Your task to perform on an android device: delete browsing data in the chrome app Image 0: 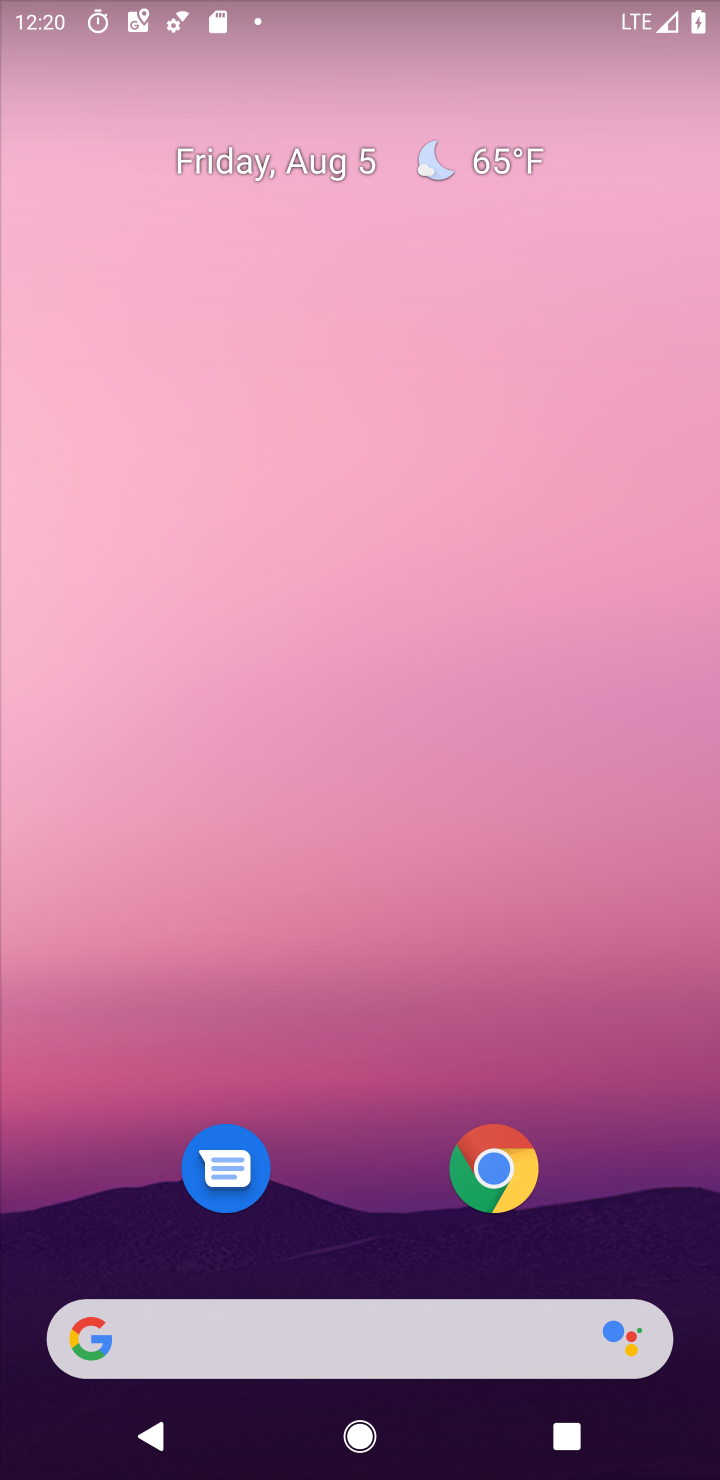
Step 0: drag from (350, 1270) to (422, 65)
Your task to perform on an android device: delete browsing data in the chrome app Image 1: 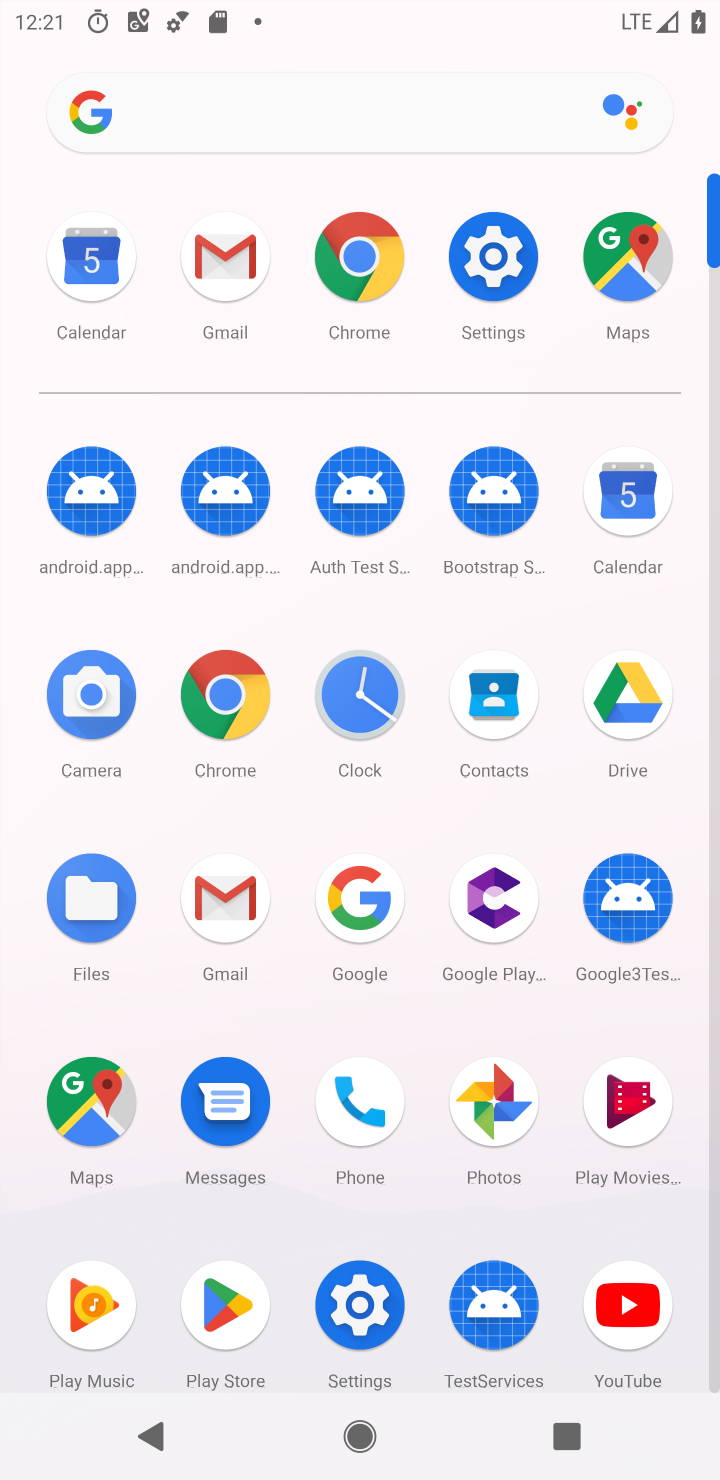
Step 1: click (232, 710)
Your task to perform on an android device: delete browsing data in the chrome app Image 2: 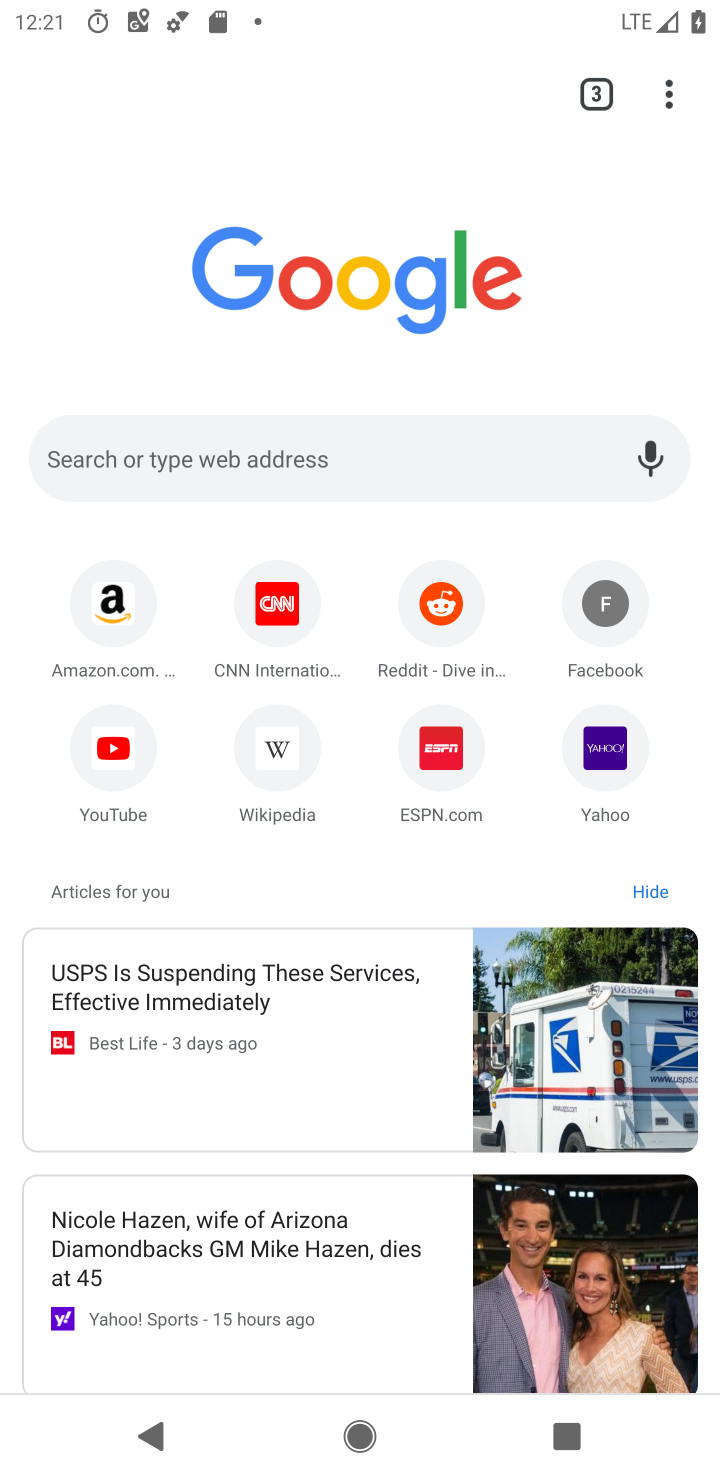
Step 2: click (657, 80)
Your task to perform on an android device: delete browsing data in the chrome app Image 3: 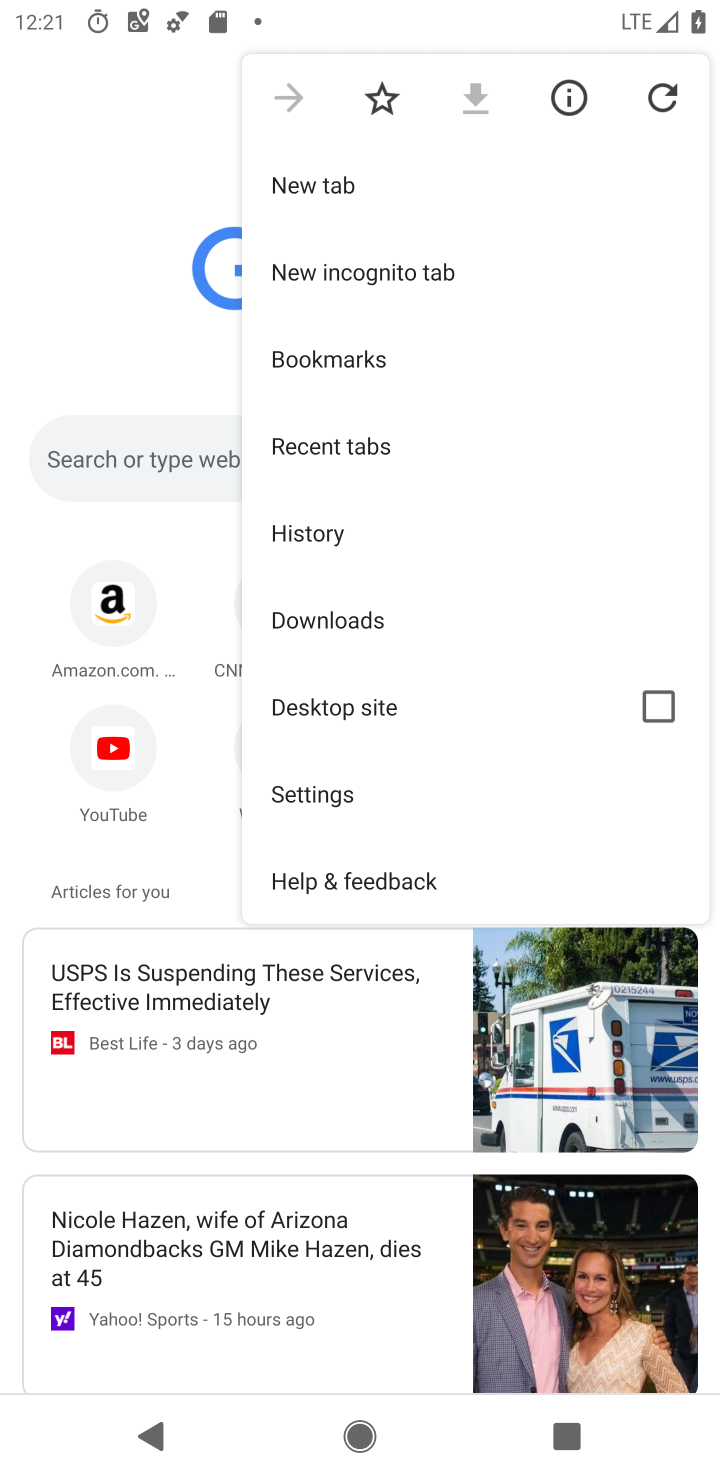
Step 3: click (315, 542)
Your task to perform on an android device: delete browsing data in the chrome app Image 4: 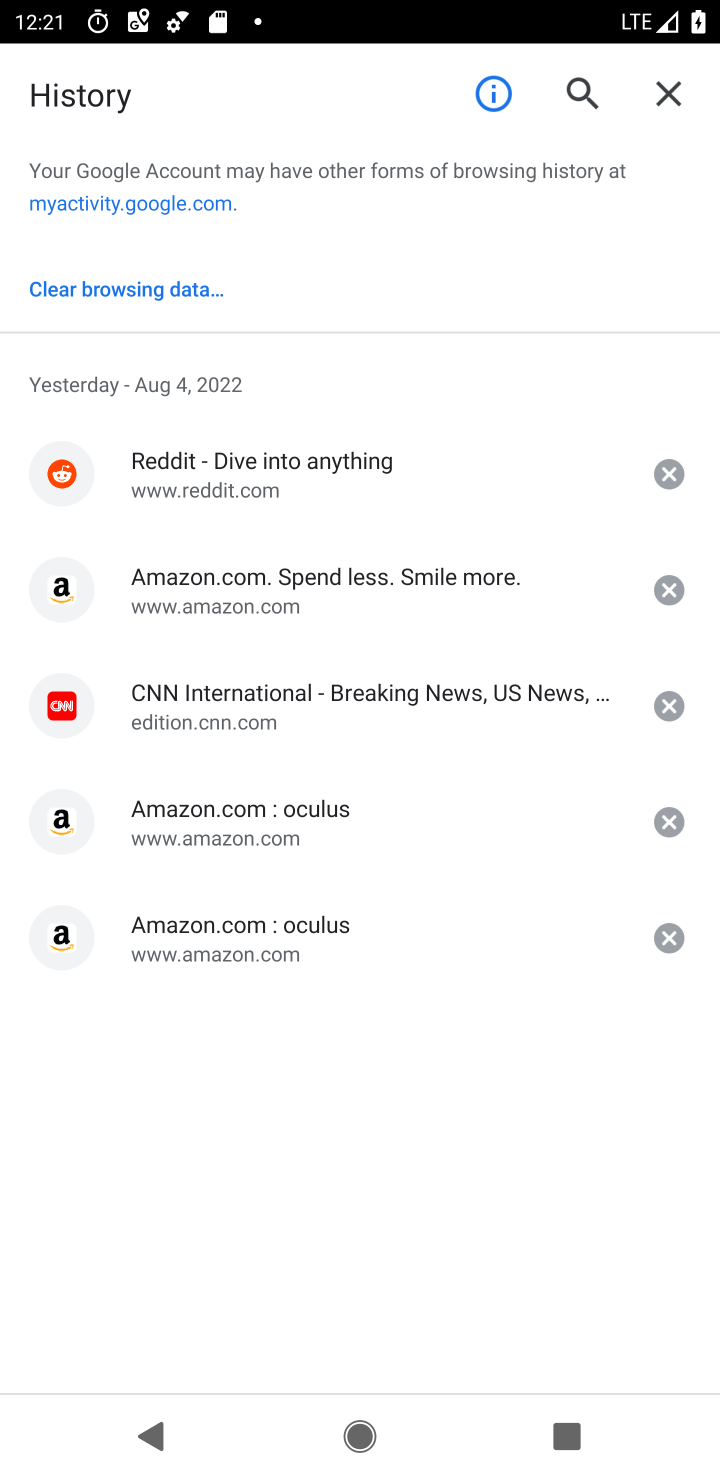
Step 4: click (117, 288)
Your task to perform on an android device: delete browsing data in the chrome app Image 5: 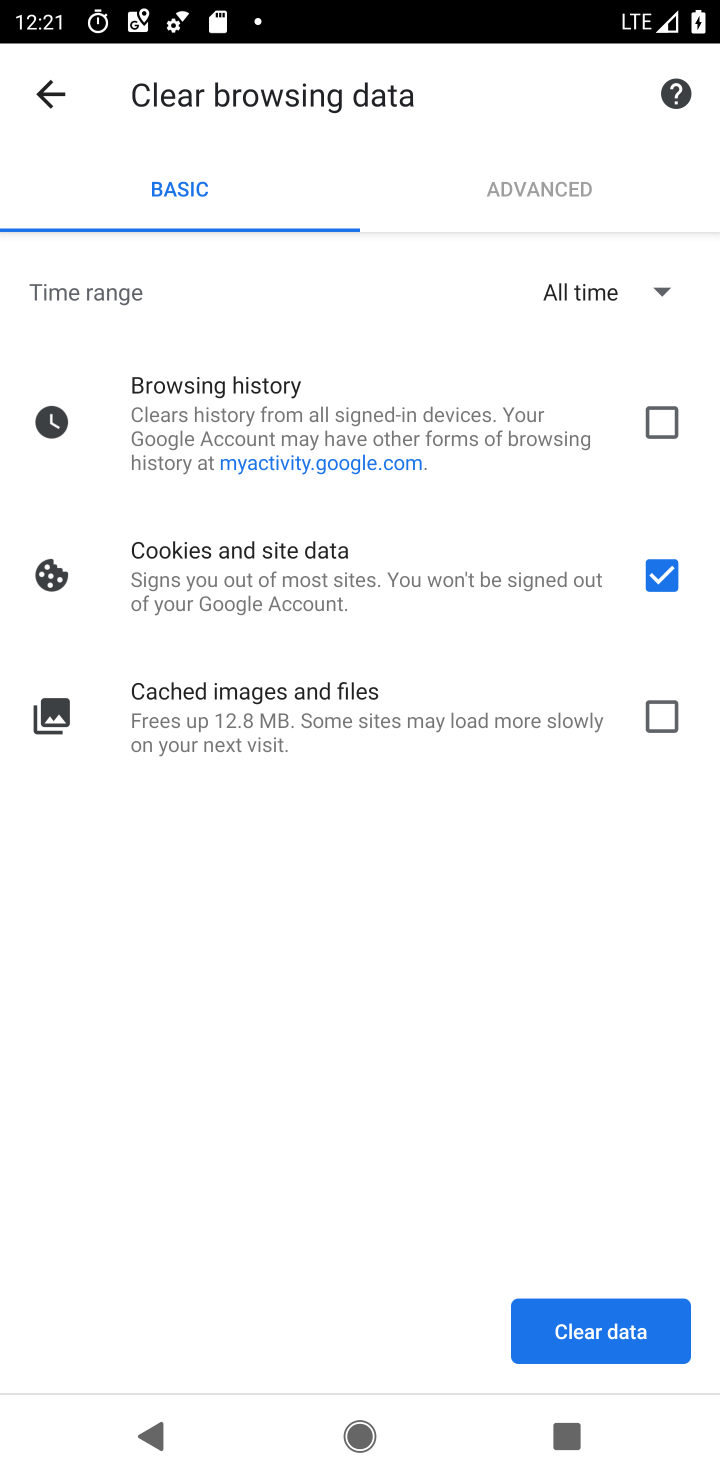
Step 5: click (639, 412)
Your task to perform on an android device: delete browsing data in the chrome app Image 6: 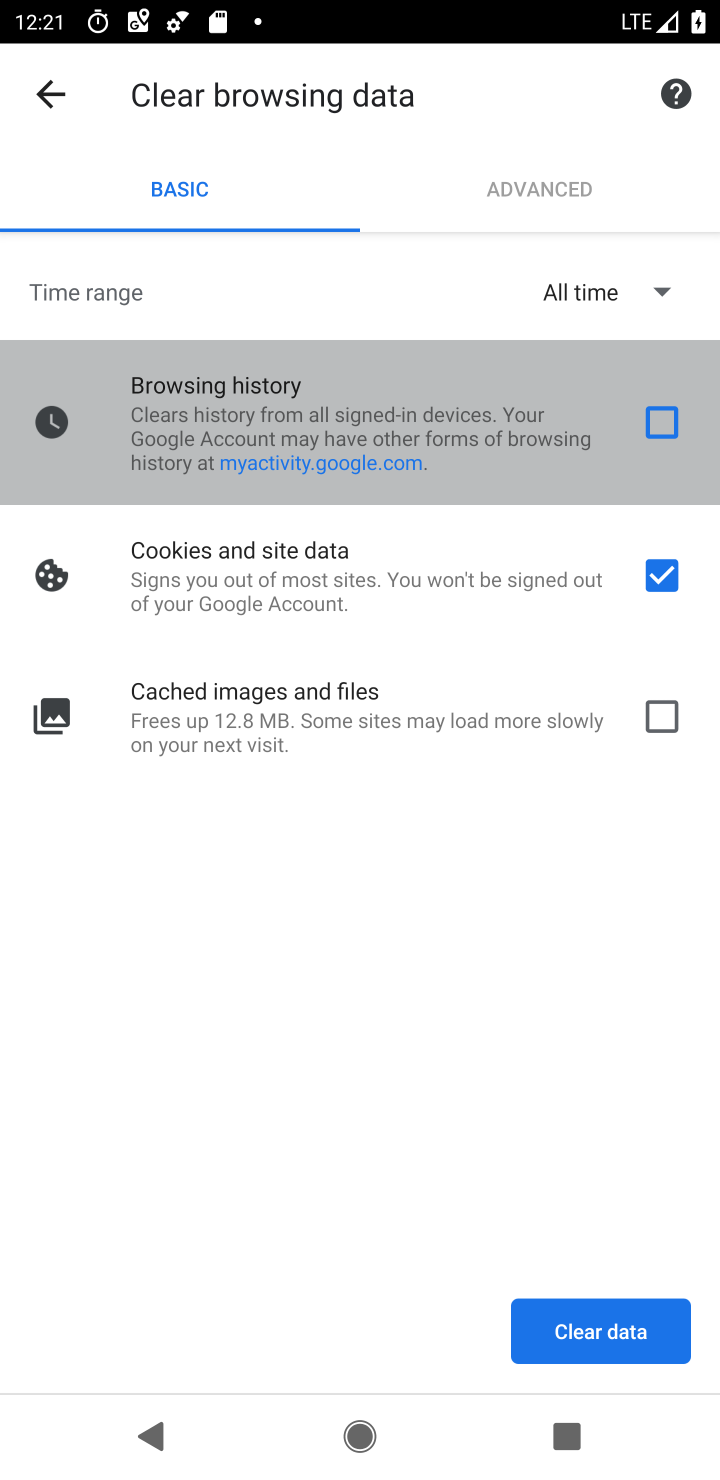
Step 6: click (662, 721)
Your task to perform on an android device: delete browsing data in the chrome app Image 7: 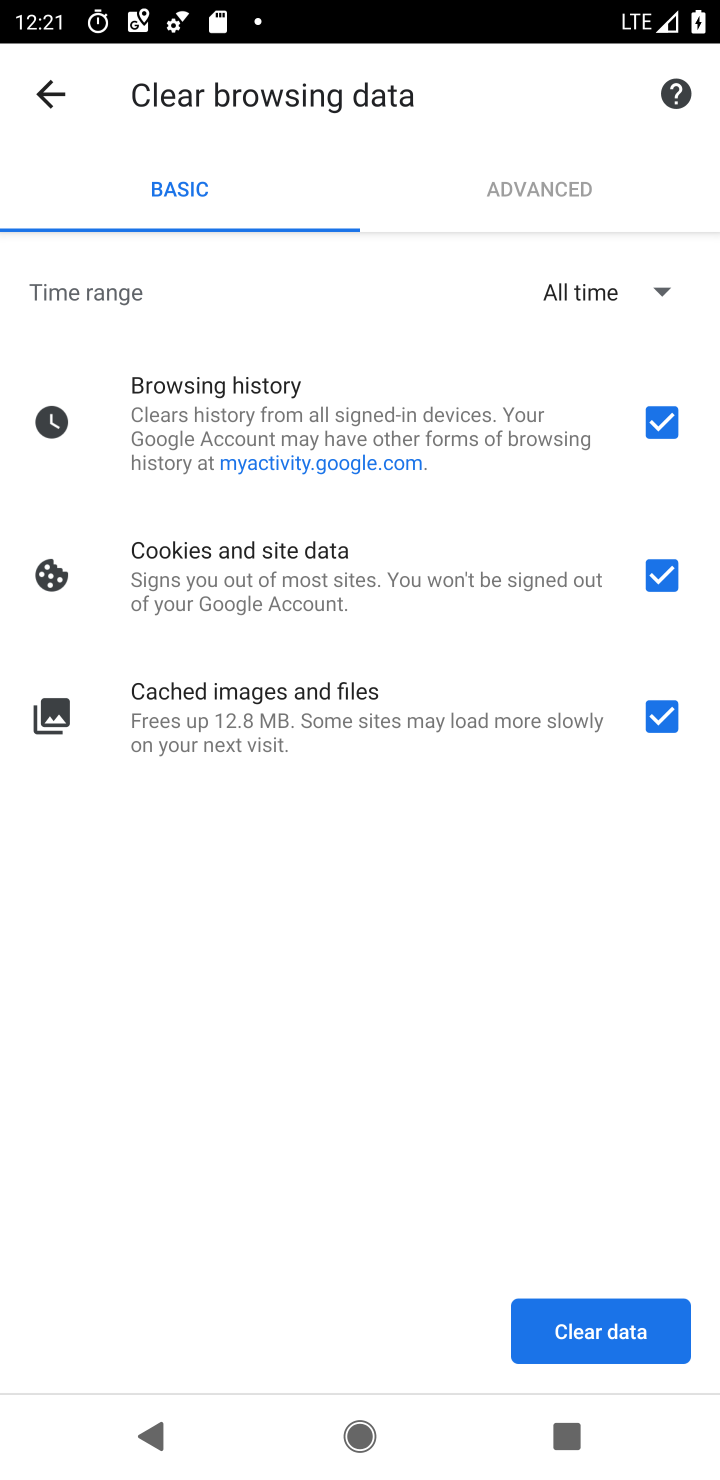
Step 7: click (631, 1318)
Your task to perform on an android device: delete browsing data in the chrome app Image 8: 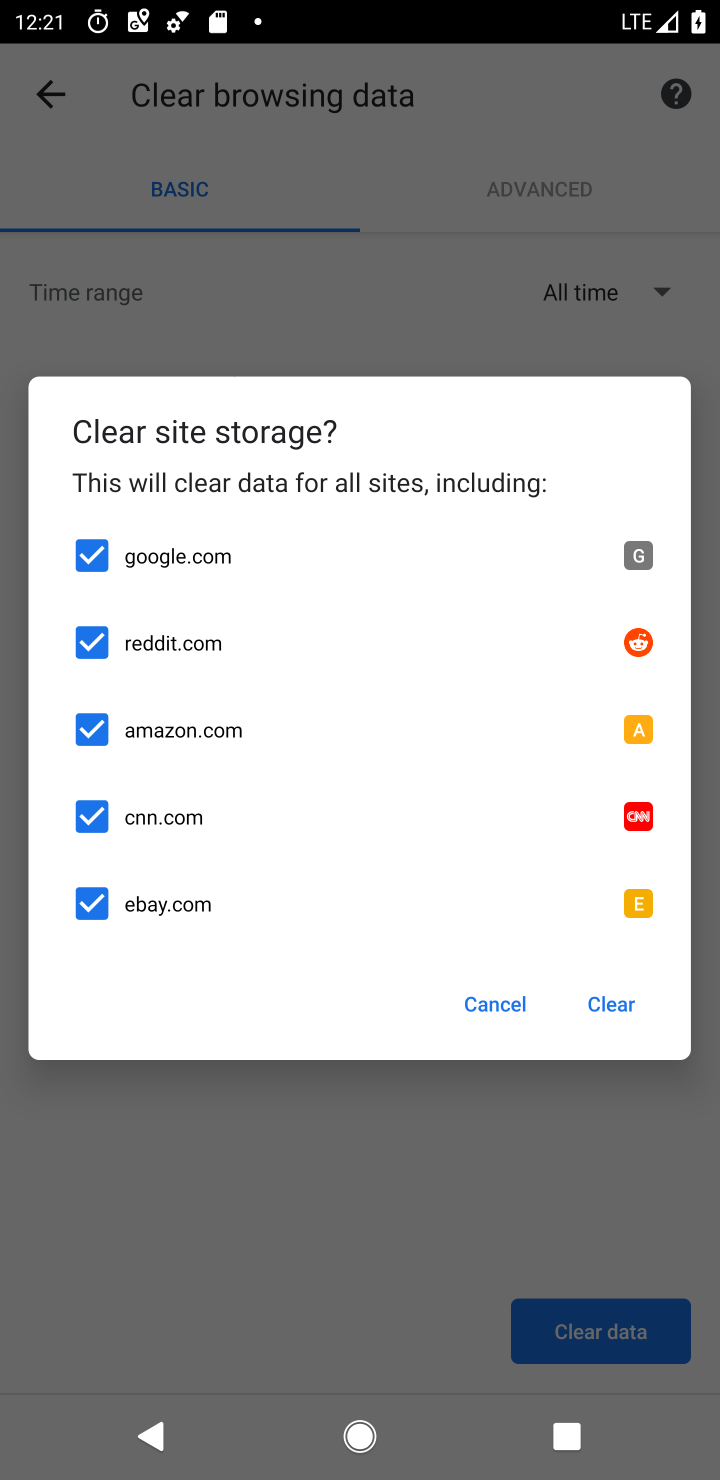
Step 8: click (618, 991)
Your task to perform on an android device: delete browsing data in the chrome app Image 9: 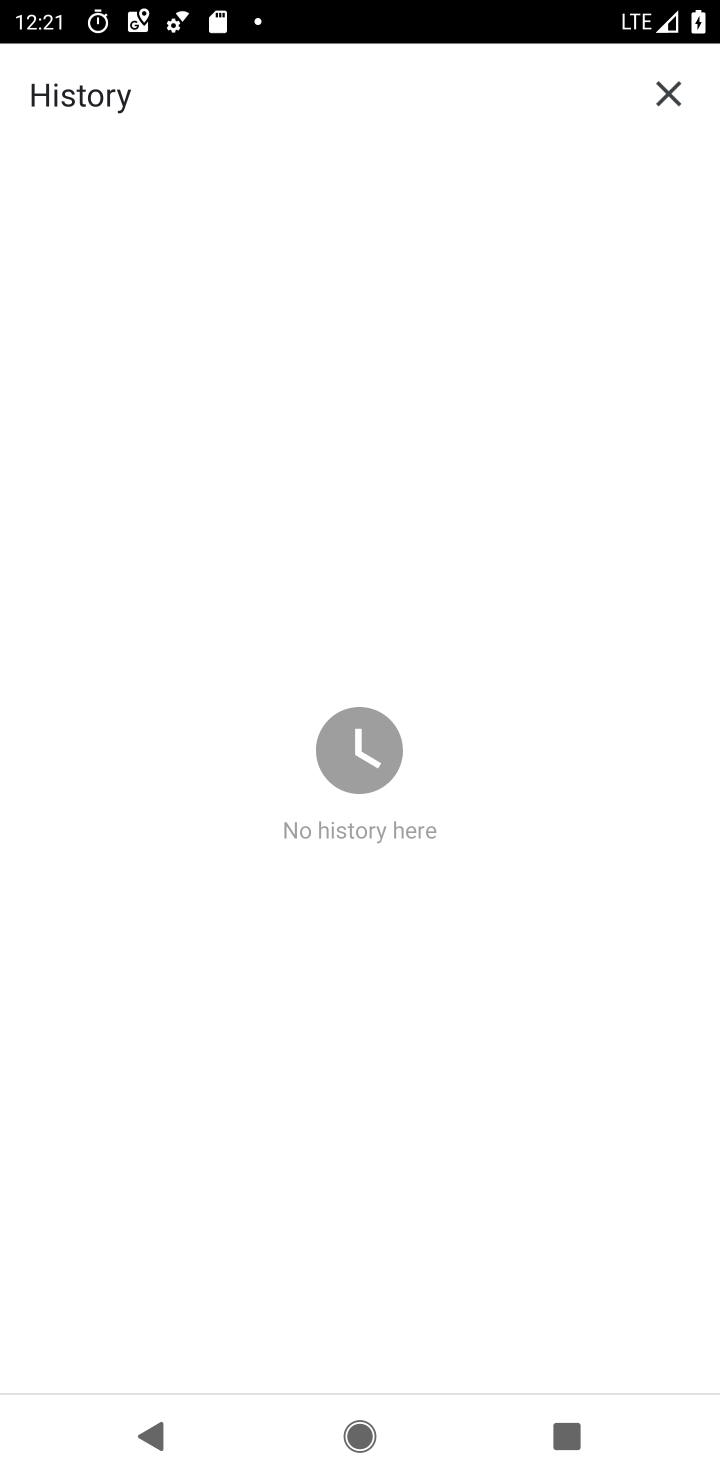
Step 9: task complete